Your task to perform on an android device: Clear the shopping cart on ebay. Image 0: 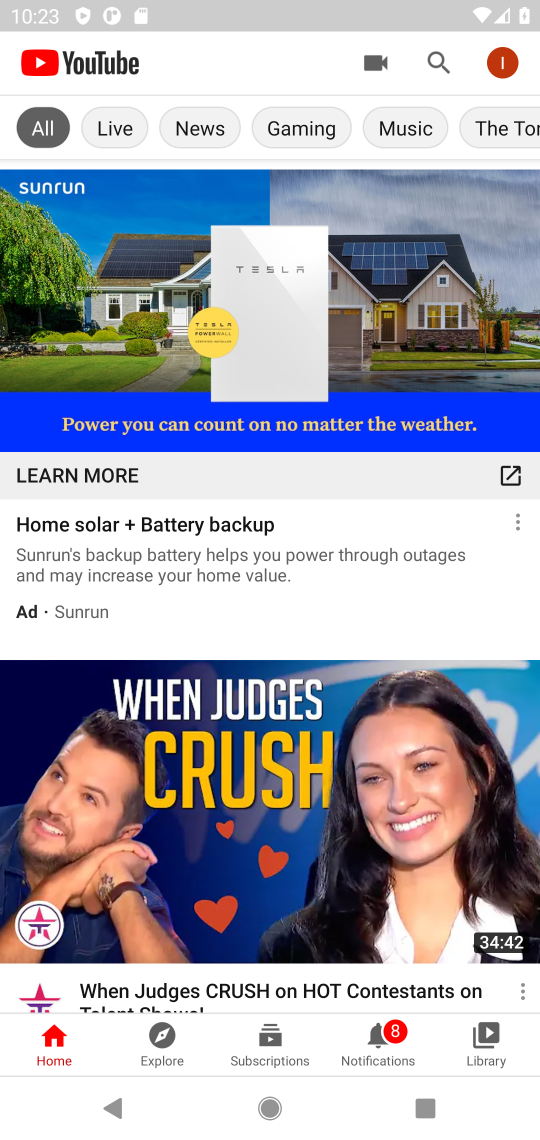
Step 0: press home button
Your task to perform on an android device: Clear the shopping cart on ebay. Image 1: 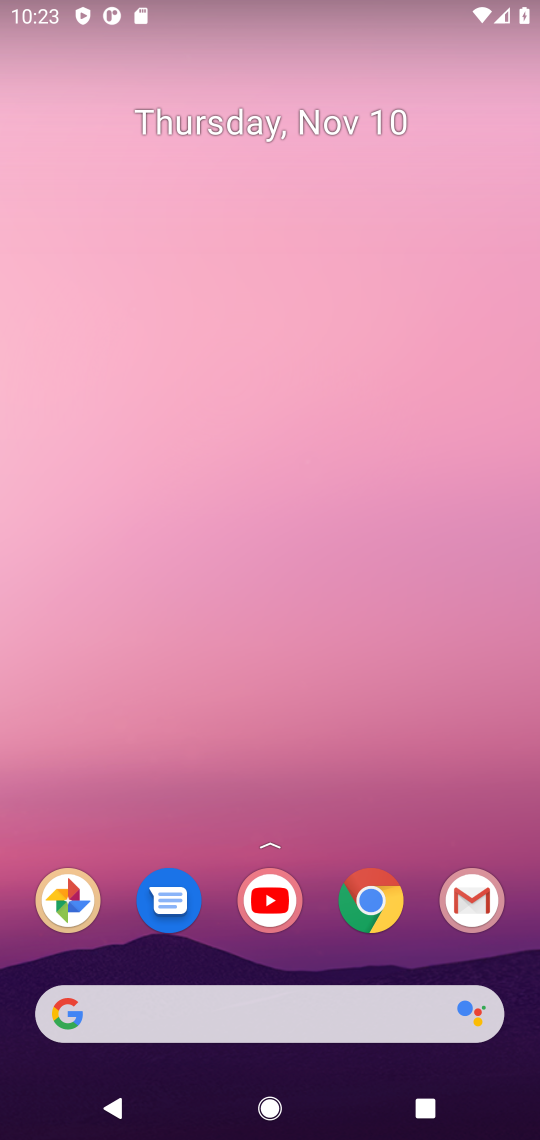
Step 1: click (371, 920)
Your task to perform on an android device: Clear the shopping cart on ebay. Image 2: 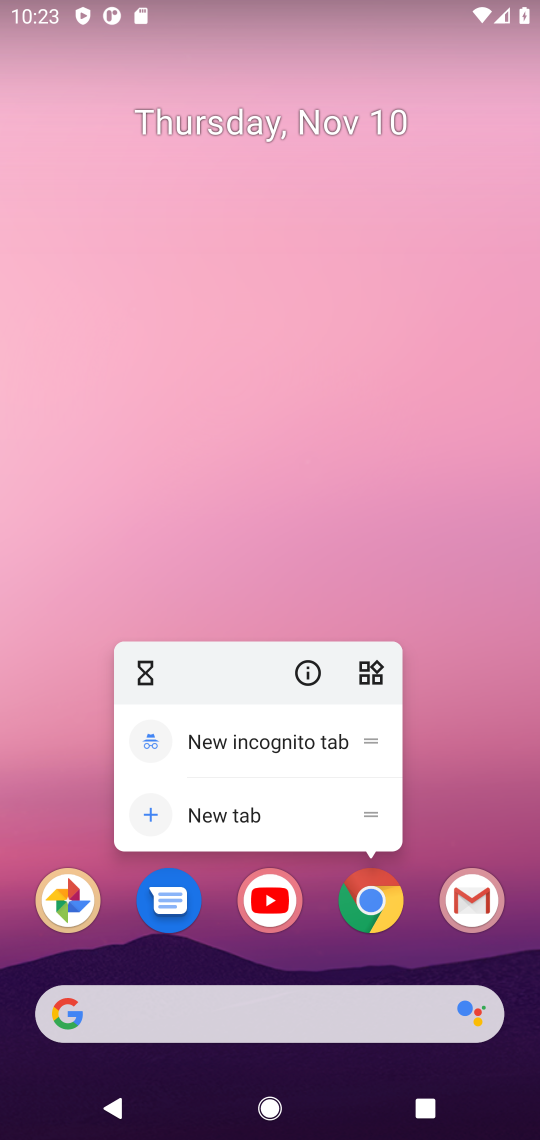
Step 2: click (371, 904)
Your task to perform on an android device: Clear the shopping cart on ebay. Image 3: 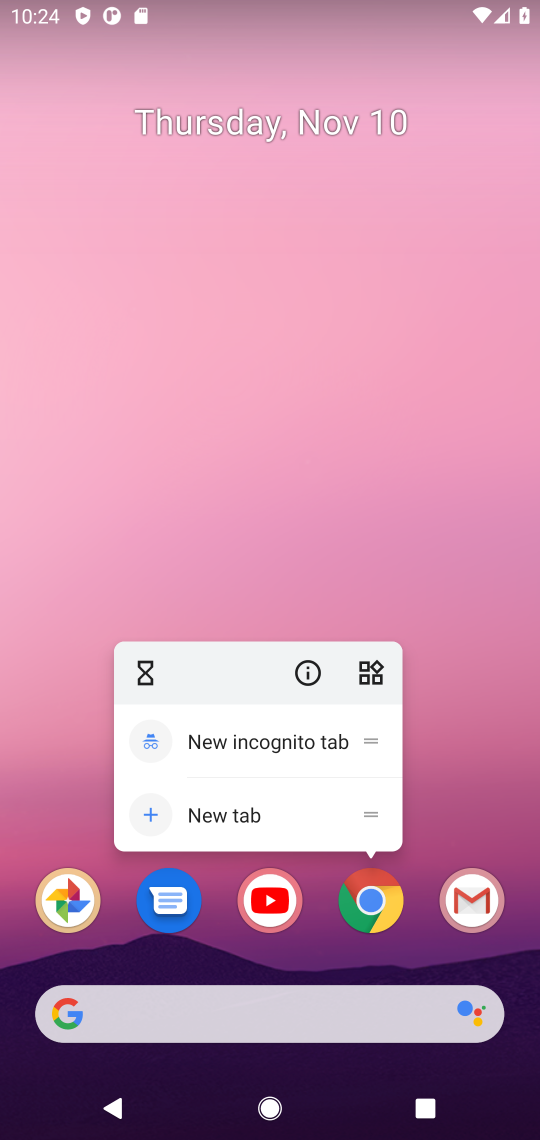
Step 3: click (371, 903)
Your task to perform on an android device: Clear the shopping cart on ebay. Image 4: 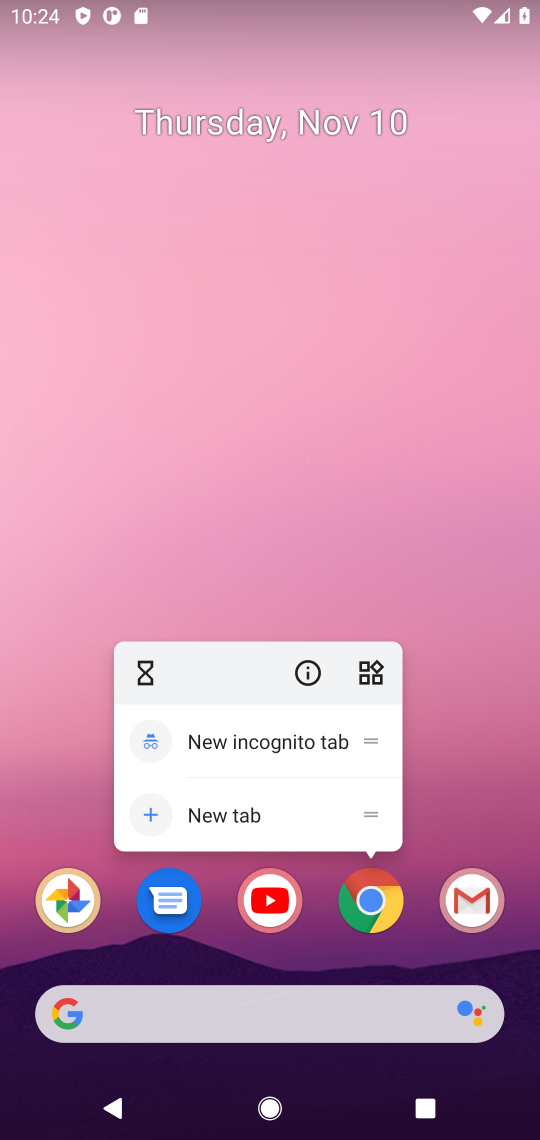
Step 4: click (371, 904)
Your task to perform on an android device: Clear the shopping cart on ebay. Image 5: 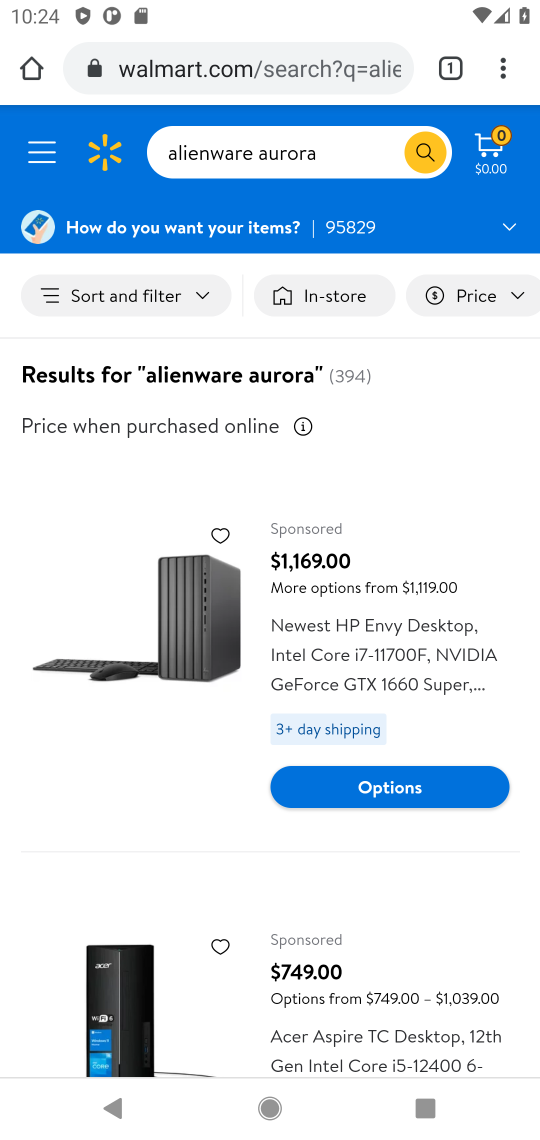
Step 5: click (272, 58)
Your task to perform on an android device: Clear the shopping cart on ebay. Image 6: 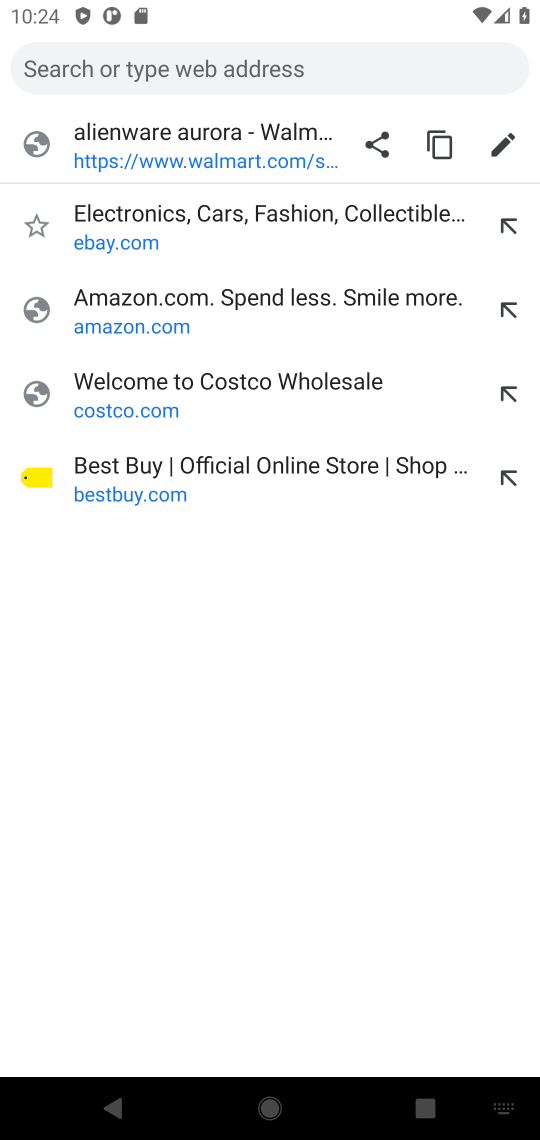
Step 6: click (139, 240)
Your task to perform on an android device: Clear the shopping cart on ebay. Image 7: 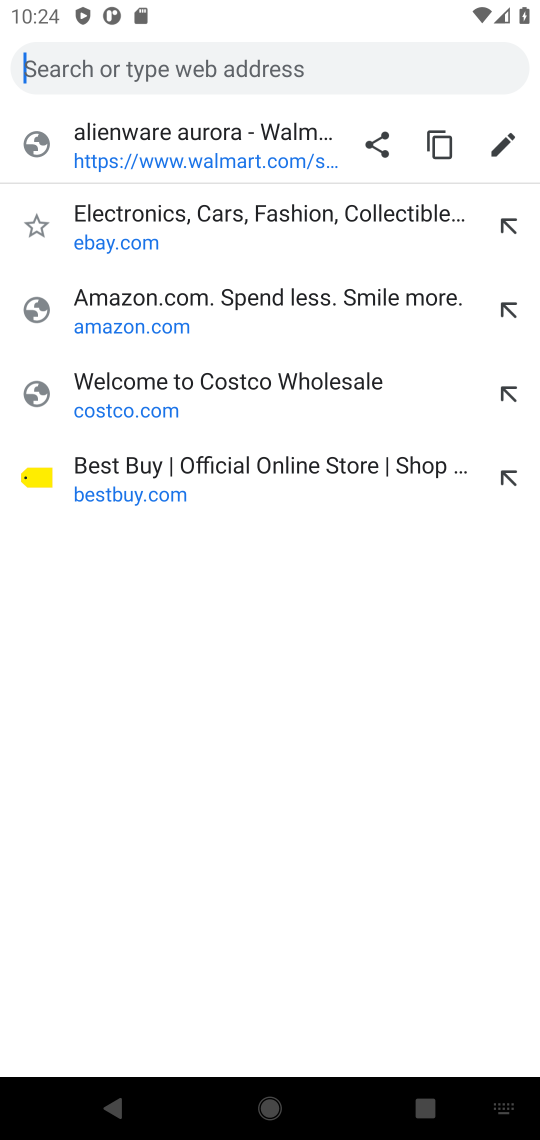
Step 7: click (106, 236)
Your task to perform on an android device: Clear the shopping cart on ebay. Image 8: 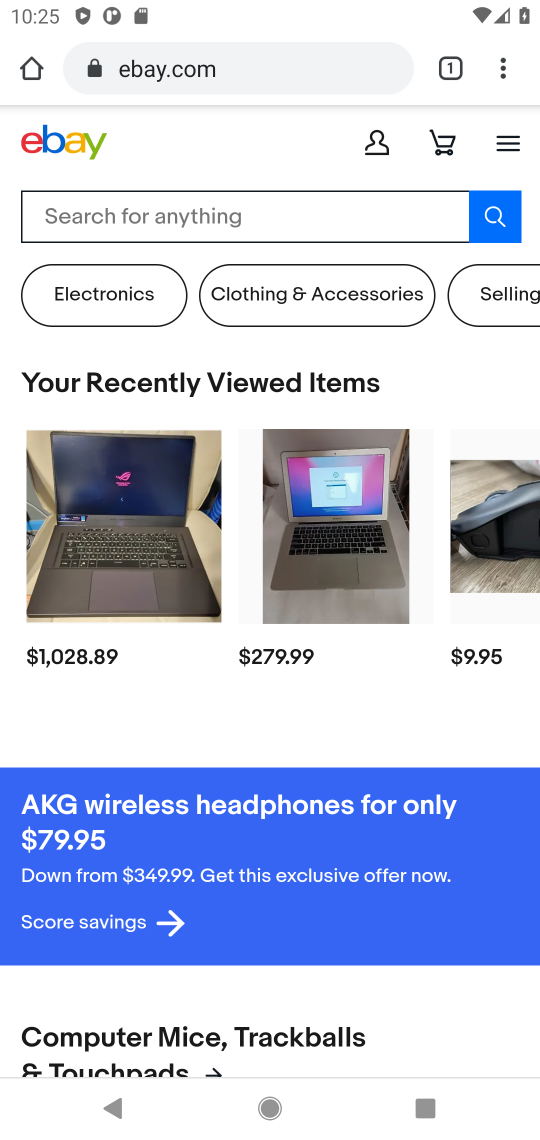
Step 8: task complete